Your task to perform on an android device: turn off wifi Image 0: 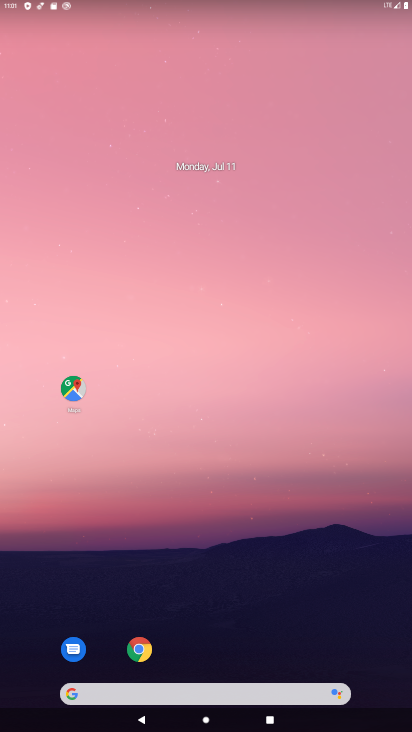
Step 0: drag from (295, 648) to (211, 61)
Your task to perform on an android device: turn off wifi Image 1: 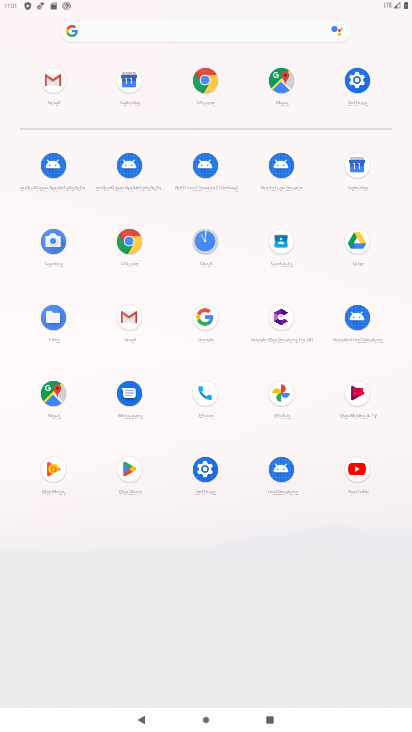
Step 1: click (360, 82)
Your task to perform on an android device: turn off wifi Image 2: 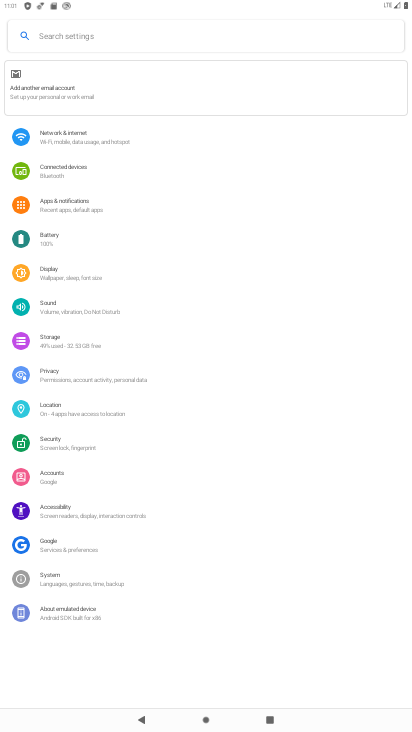
Step 2: click (108, 140)
Your task to perform on an android device: turn off wifi Image 3: 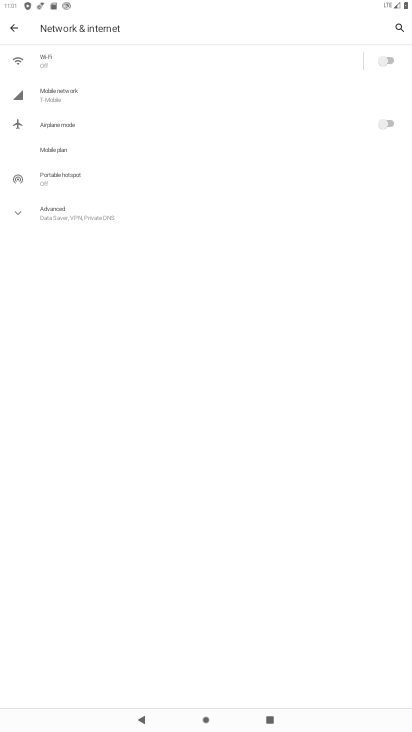
Step 3: task complete